Your task to perform on an android device: Go to Maps Image 0: 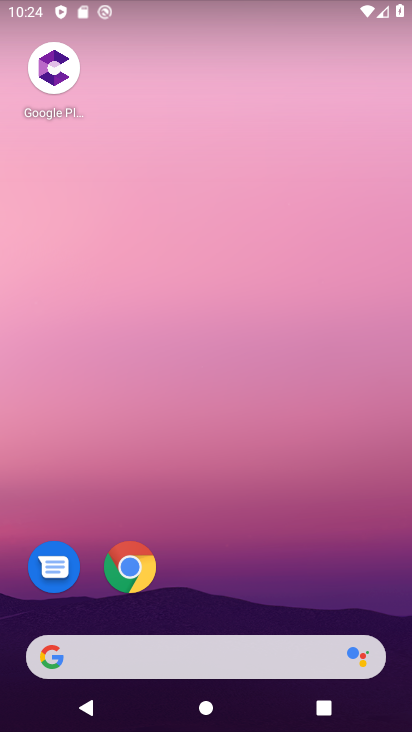
Step 0: drag from (139, 614) to (231, 152)
Your task to perform on an android device: Go to Maps Image 1: 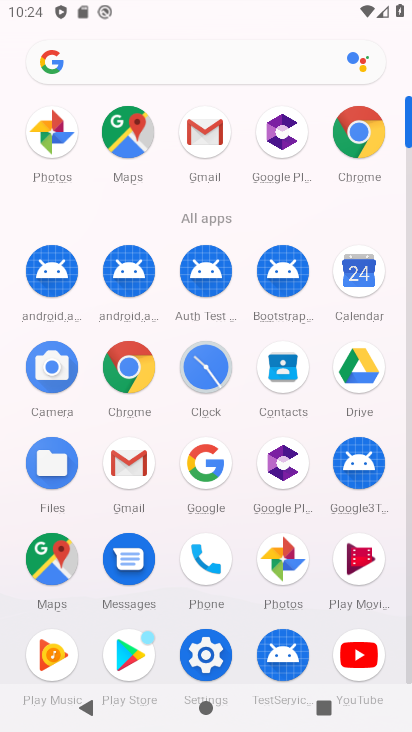
Step 1: click (51, 555)
Your task to perform on an android device: Go to Maps Image 2: 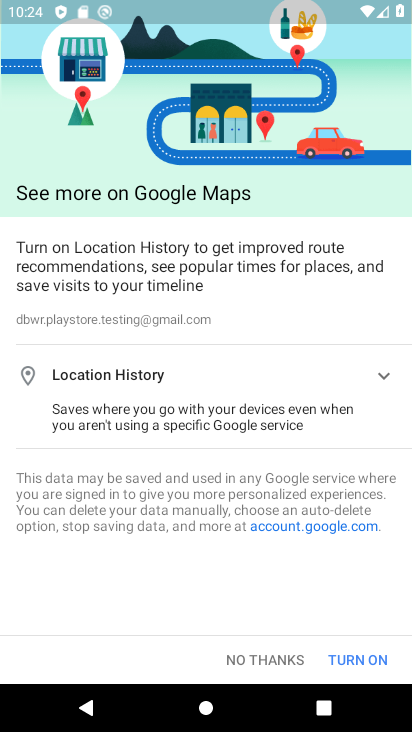
Step 2: task complete